Your task to perform on an android device: set default search engine in the chrome app Image 0: 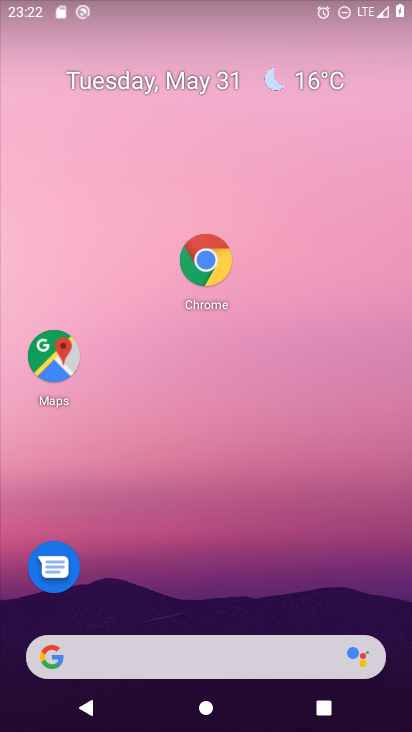
Step 0: drag from (292, 626) to (248, 262)
Your task to perform on an android device: set default search engine in the chrome app Image 1: 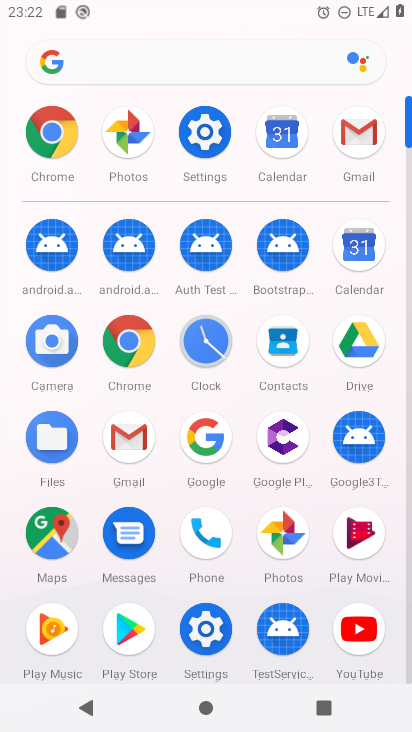
Step 1: click (123, 341)
Your task to perform on an android device: set default search engine in the chrome app Image 2: 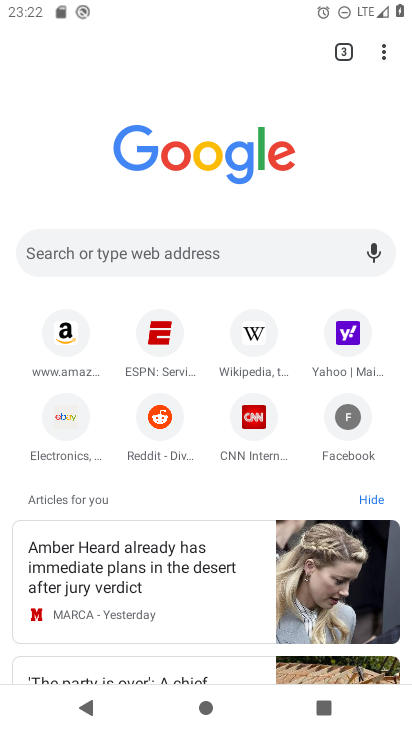
Step 2: click (381, 52)
Your task to perform on an android device: set default search engine in the chrome app Image 3: 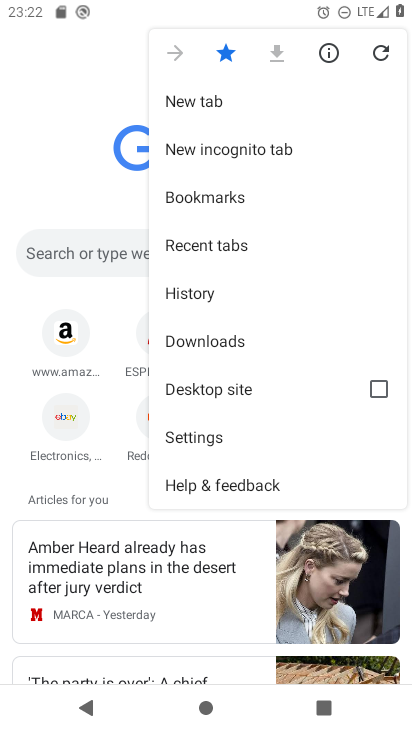
Step 3: click (198, 432)
Your task to perform on an android device: set default search engine in the chrome app Image 4: 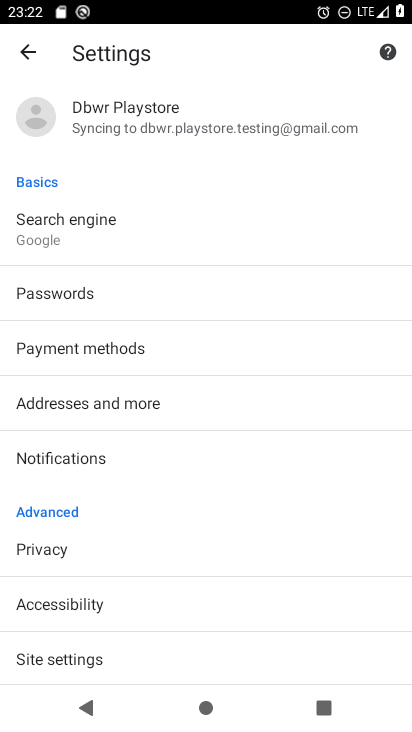
Step 4: click (105, 239)
Your task to perform on an android device: set default search engine in the chrome app Image 5: 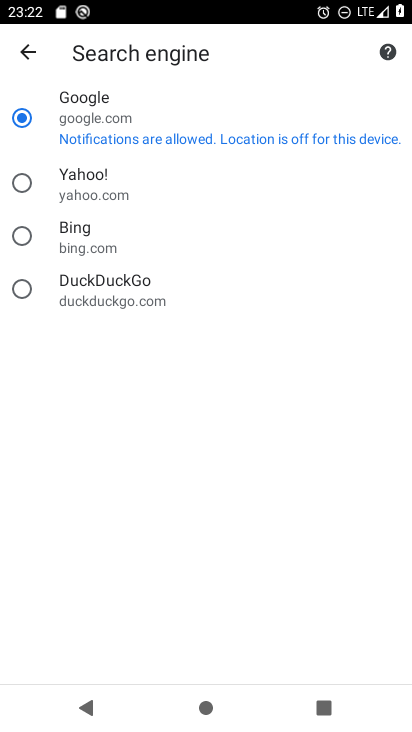
Step 5: task complete